Your task to perform on an android device: Is it going to rain tomorrow? Image 0: 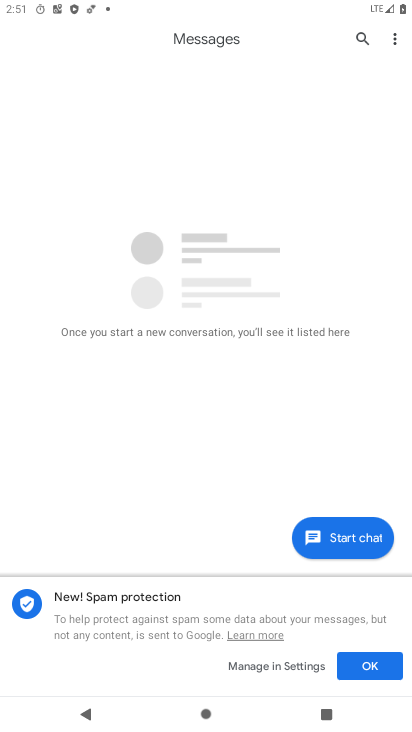
Step 0: press home button
Your task to perform on an android device: Is it going to rain tomorrow? Image 1: 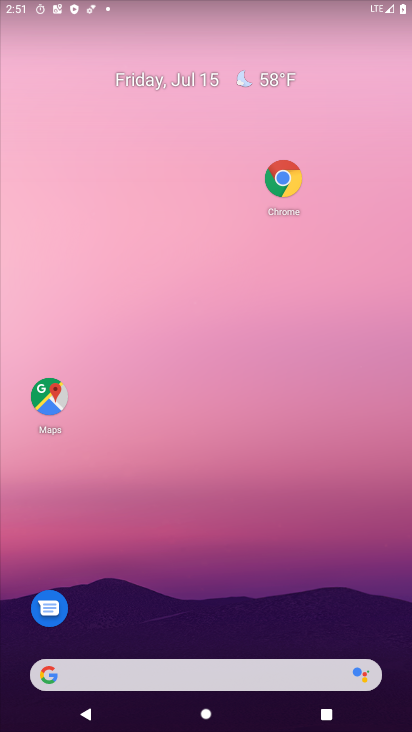
Step 1: click (279, 182)
Your task to perform on an android device: Is it going to rain tomorrow? Image 2: 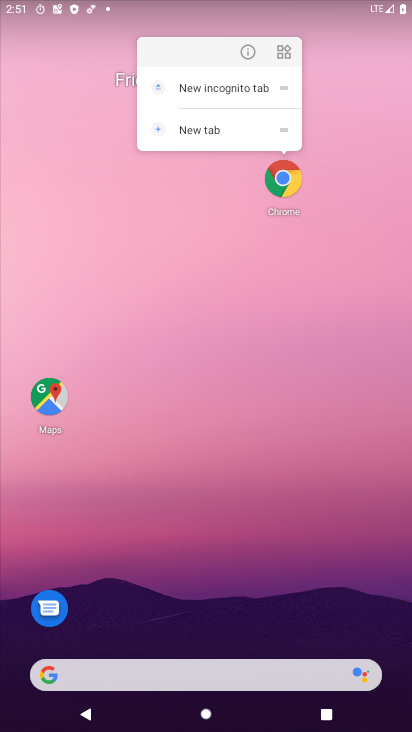
Step 2: click (279, 182)
Your task to perform on an android device: Is it going to rain tomorrow? Image 3: 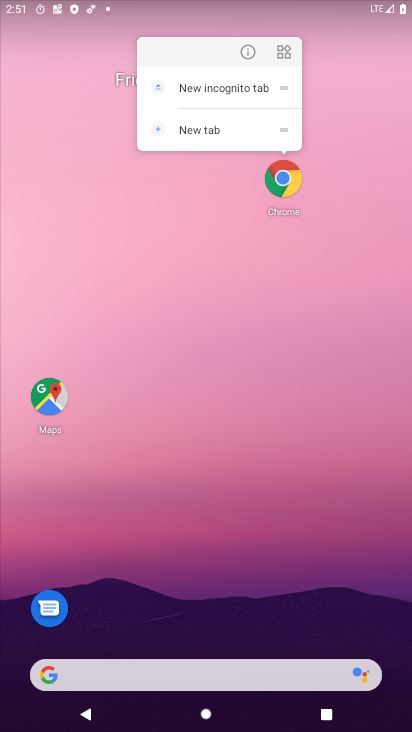
Step 3: click (279, 182)
Your task to perform on an android device: Is it going to rain tomorrow? Image 4: 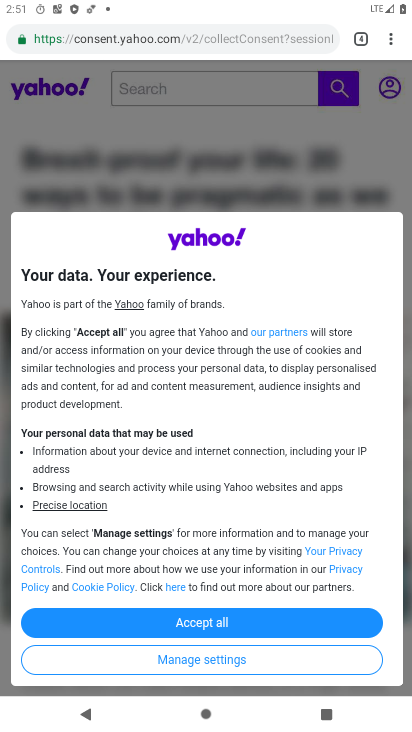
Step 4: click (229, 39)
Your task to perform on an android device: Is it going to rain tomorrow? Image 5: 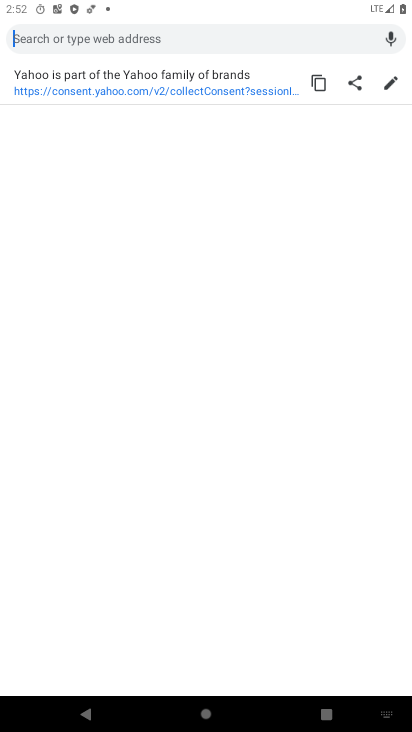
Step 5: type "Is it going to rain tomorrow?"
Your task to perform on an android device: Is it going to rain tomorrow? Image 6: 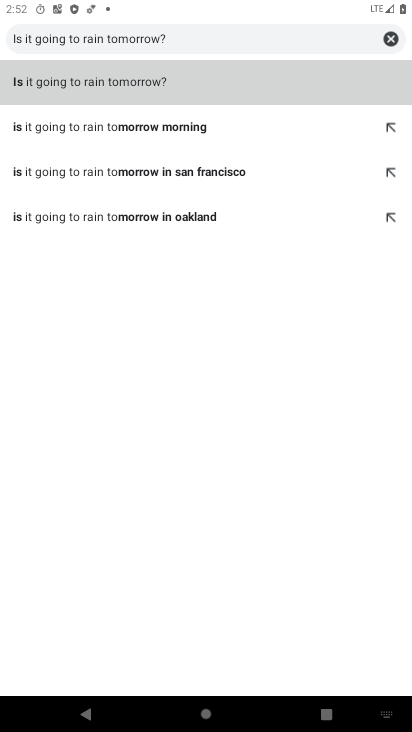
Step 6: click (294, 82)
Your task to perform on an android device: Is it going to rain tomorrow? Image 7: 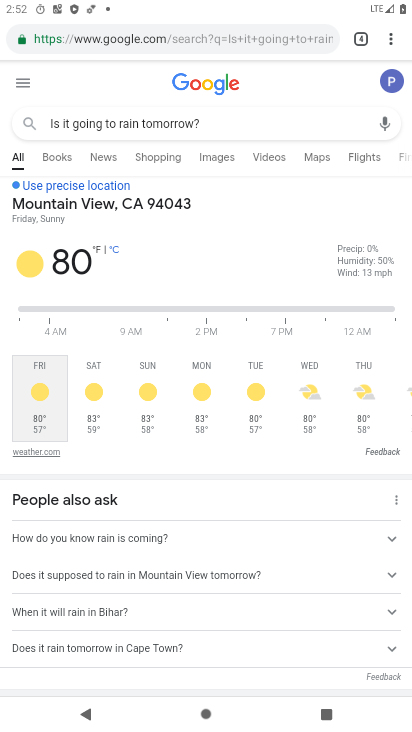
Step 7: task complete